Your task to perform on an android device: What is the recent news? Image 0: 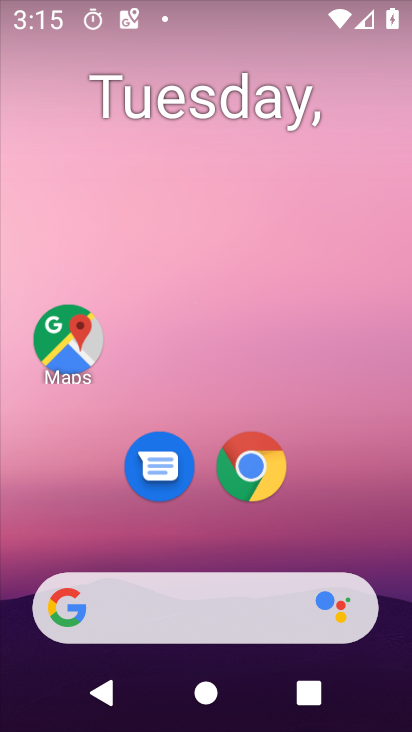
Step 0: drag from (40, 231) to (408, 273)
Your task to perform on an android device: What is the recent news? Image 1: 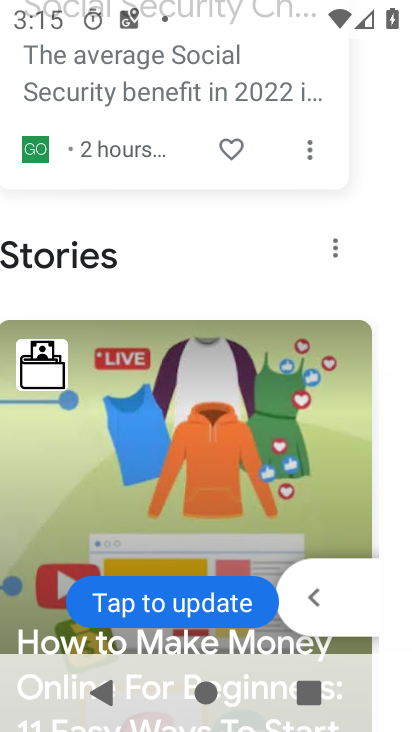
Step 1: task complete